Your task to perform on an android device: Open Google Chrome Image 0: 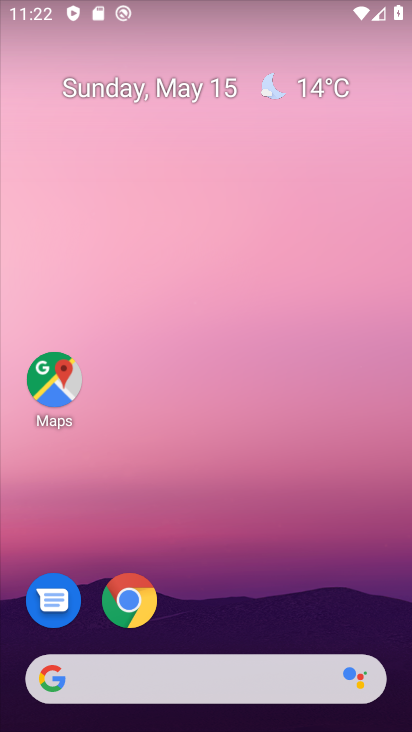
Step 0: click (131, 603)
Your task to perform on an android device: Open Google Chrome Image 1: 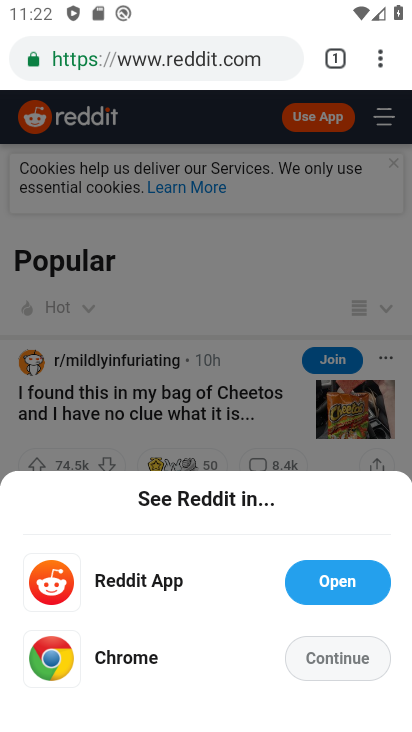
Step 1: task complete